Your task to perform on an android device: Open accessibility settings Image 0: 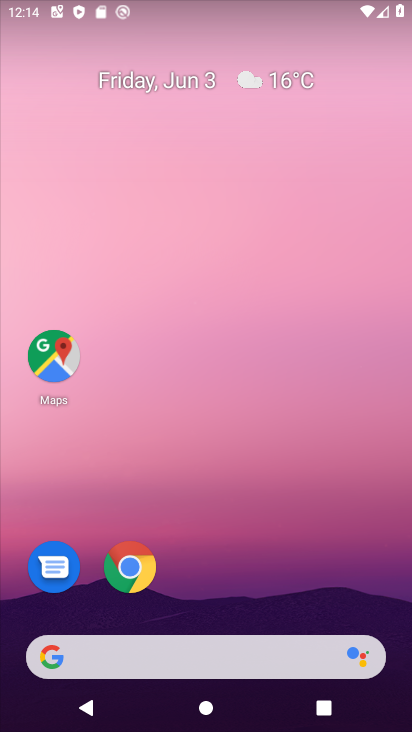
Step 0: drag from (283, 603) to (285, 122)
Your task to perform on an android device: Open accessibility settings Image 1: 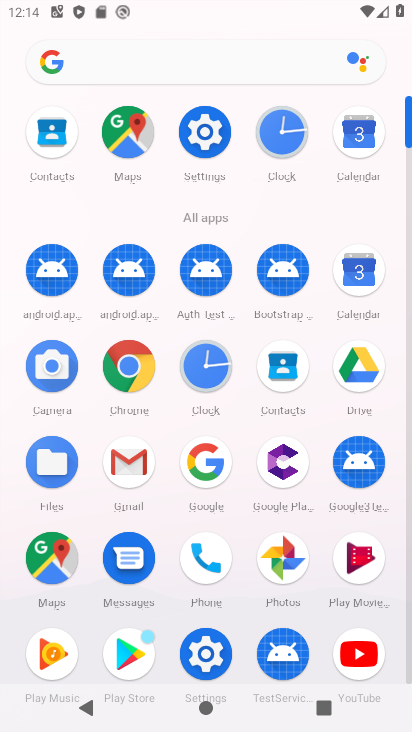
Step 1: click (217, 141)
Your task to perform on an android device: Open accessibility settings Image 2: 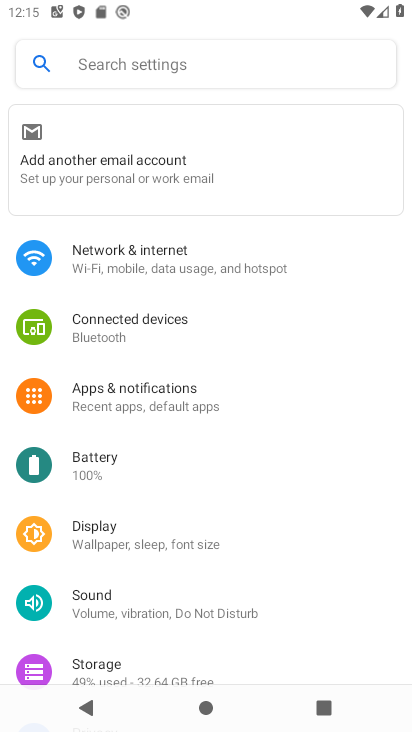
Step 2: drag from (236, 600) to (215, 195)
Your task to perform on an android device: Open accessibility settings Image 3: 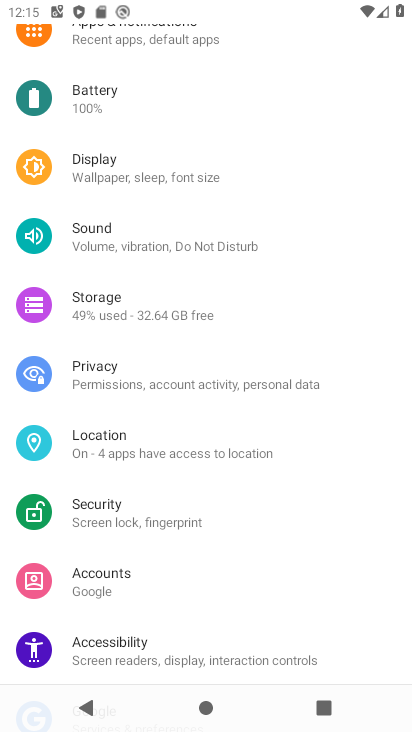
Step 3: drag from (173, 649) to (165, 386)
Your task to perform on an android device: Open accessibility settings Image 4: 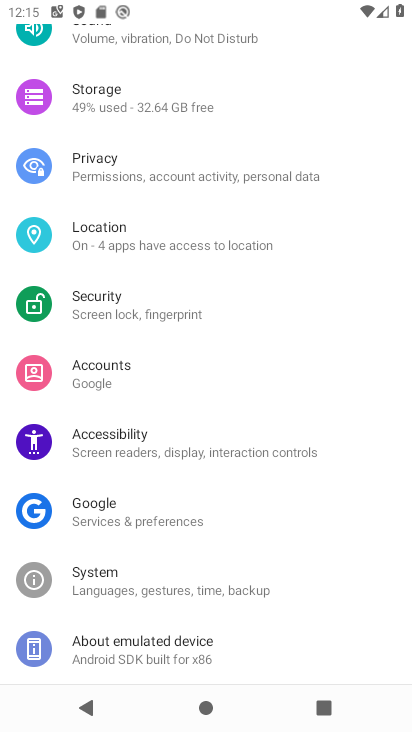
Step 4: click (149, 437)
Your task to perform on an android device: Open accessibility settings Image 5: 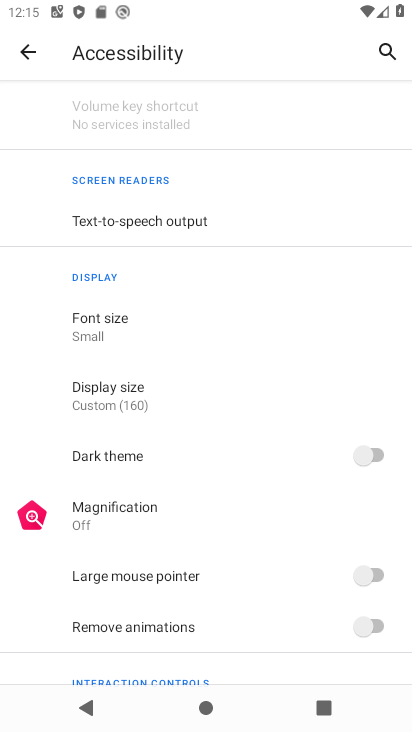
Step 5: task complete